Your task to perform on an android device: Go to ESPN.com Image 0: 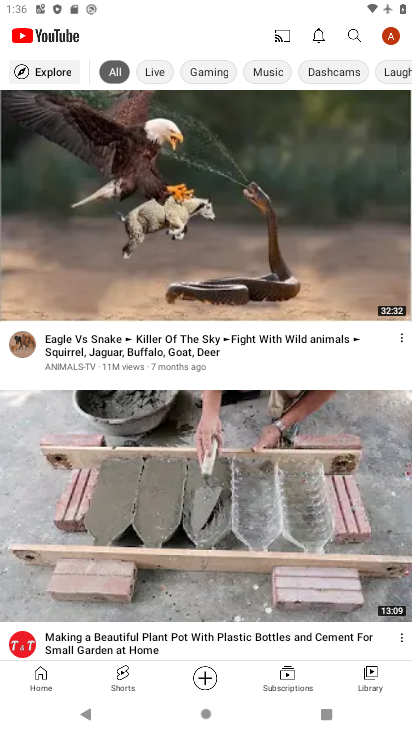
Step 0: press home button
Your task to perform on an android device: Go to ESPN.com Image 1: 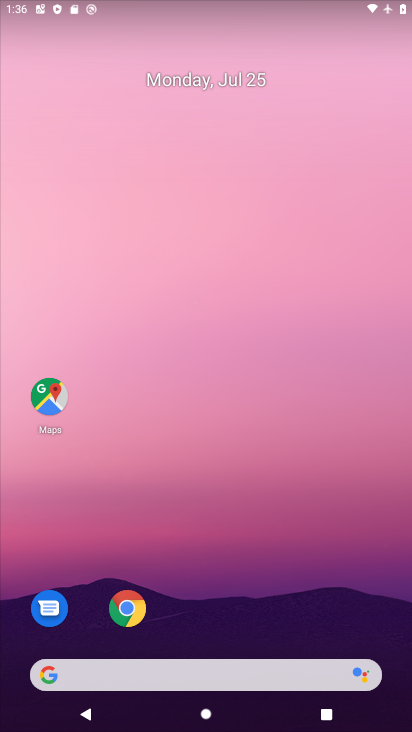
Step 1: drag from (216, 570) to (306, 192)
Your task to perform on an android device: Go to ESPN.com Image 2: 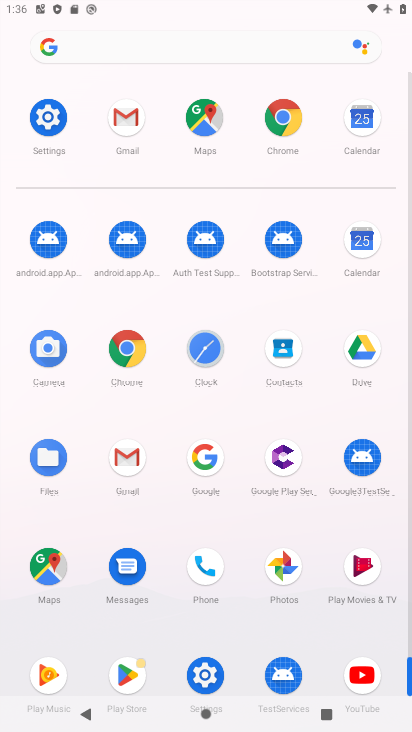
Step 2: click (124, 363)
Your task to perform on an android device: Go to ESPN.com Image 3: 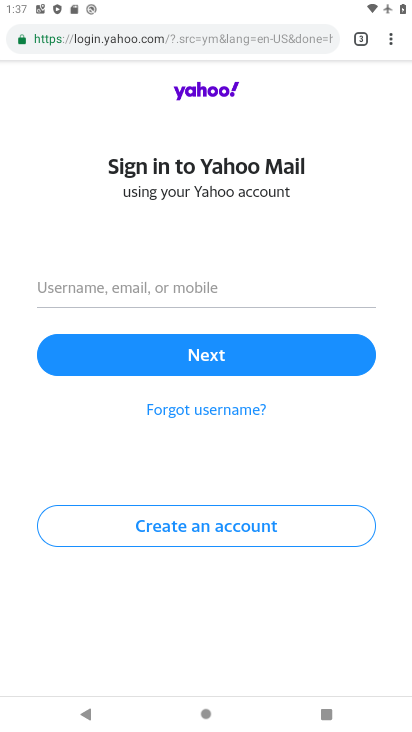
Step 3: click (222, 30)
Your task to perform on an android device: Go to ESPN.com Image 4: 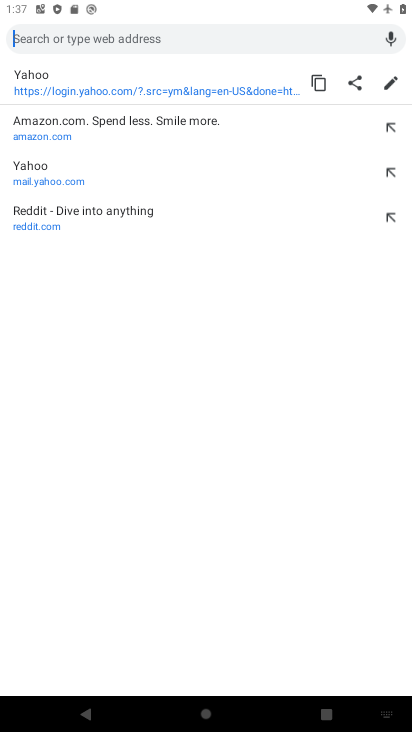
Step 4: type "espn"
Your task to perform on an android device: Go to ESPN.com Image 5: 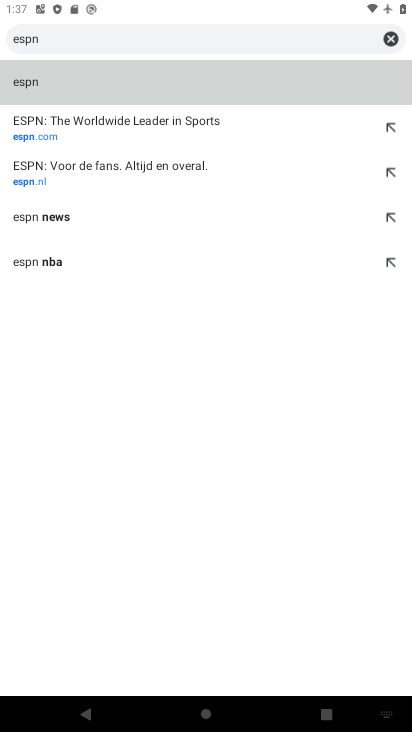
Step 5: click (306, 137)
Your task to perform on an android device: Go to ESPN.com Image 6: 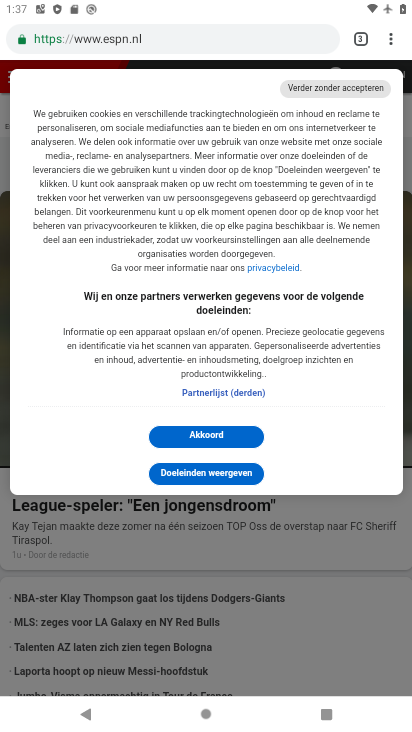
Step 6: task complete